Your task to perform on an android device: toggle priority inbox in the gmail app Image 0: 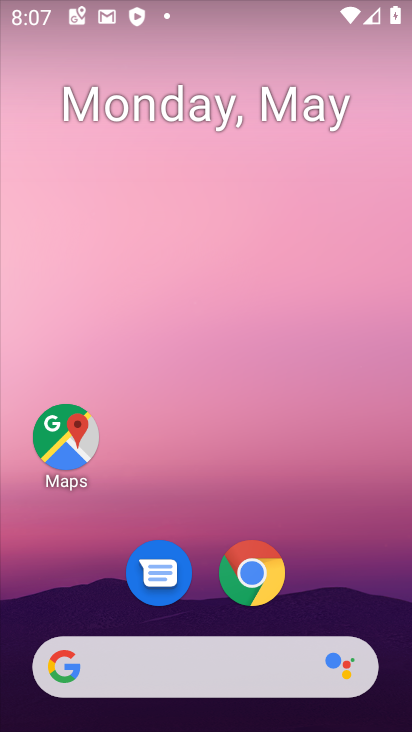
Step 0: drag from (264, 667) to (277, 60)
Your task to perform on an android device: toggle priority inbox in the gmail app Image 1: 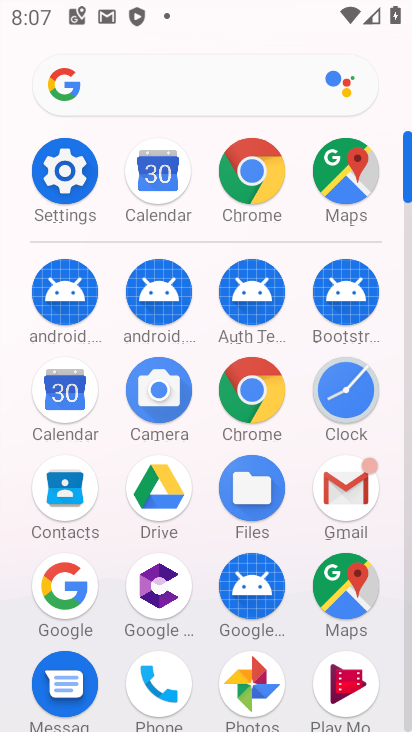
Step 1: click (354, 513)
Your task to perform on an android device: toggle priority inbox in the gmail app Image 2: 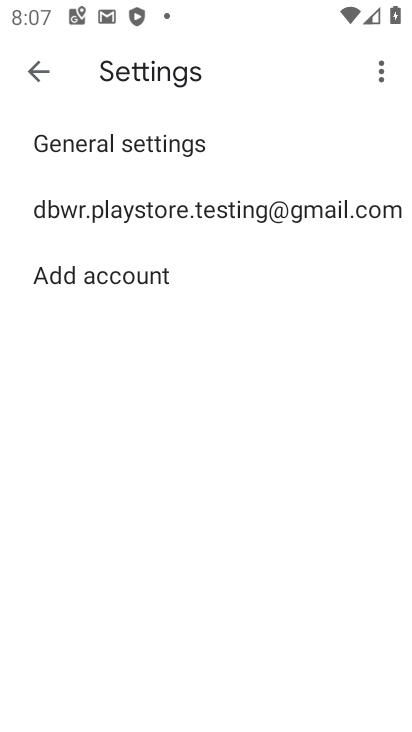
Step 2: click (134, 217)
Your task to perform on an android device: toggle priority inbox in the gmail app Image 3: 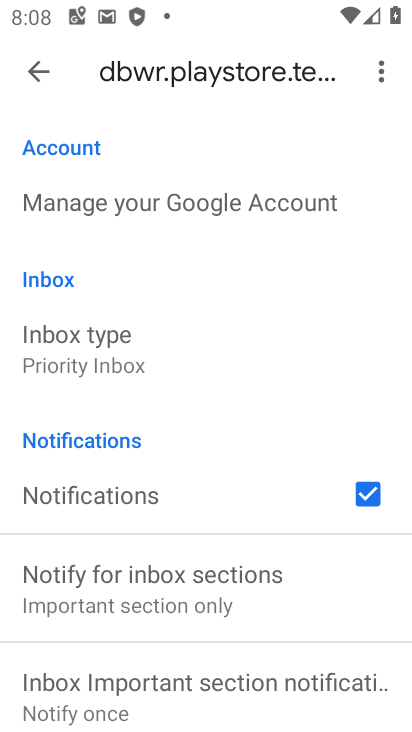
Step 3: click (143, 342)
Your task to perform on an android device: toggle priority inbox in the gmail app Image 4: 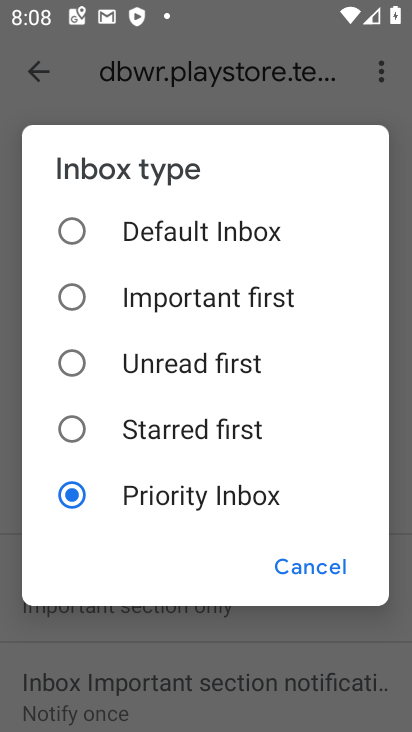
Step 4: click (151, 372)
Your task to perform on an android device: toggle priority inbox in the gmail app Image 5: 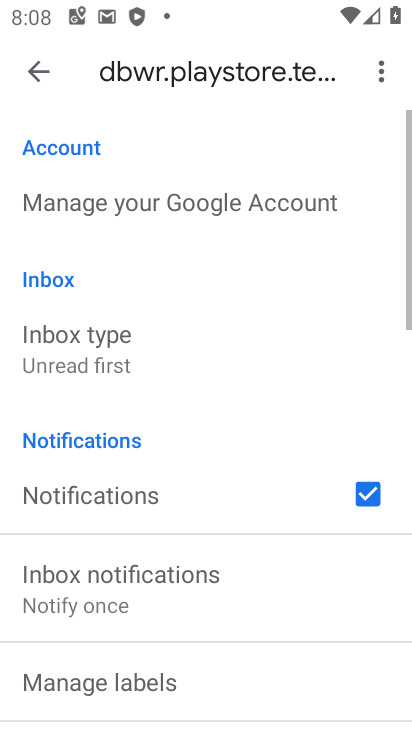
Step 5: task complete